Your task to perform on an android device: Is it going to rain tomorrow? Image 0: 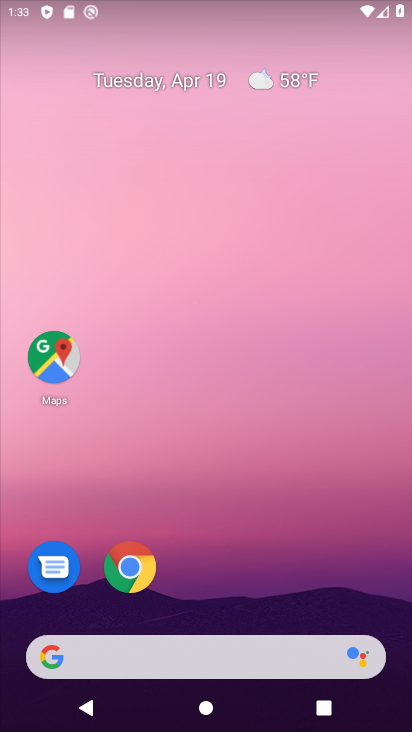
Step 0: click (126, 565)
Your task to perform on an android device: Is it going to rain tomorrow? Image 1: 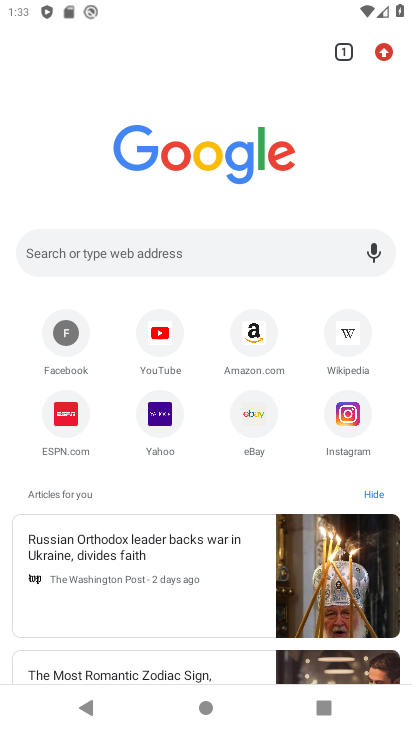
Step 1: click (132, 255)
Your task to perform on an android device: Is it going to rain tomorrow? Image 2: 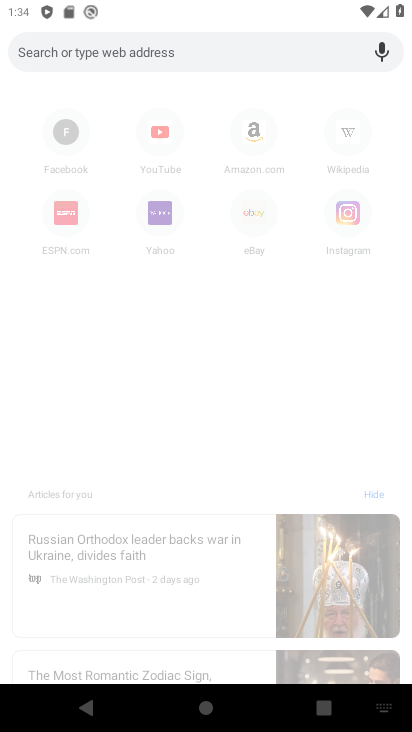
Step 2: type "is it going to rain tomorrow"
Your task to perform on an android device: Is it going to rain tomorrow? Image 3: 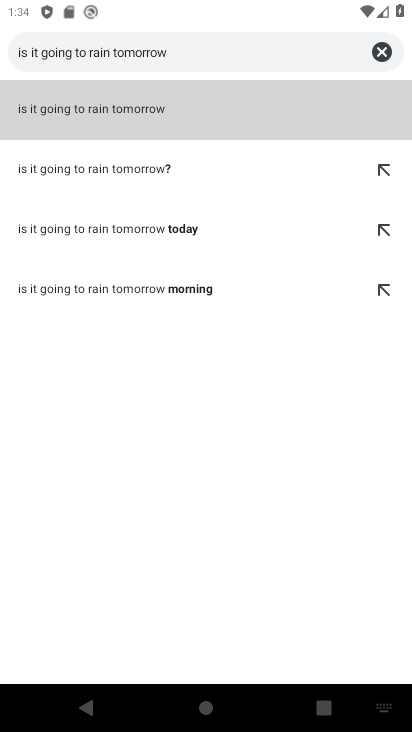
Step 3: click (154, 172)
Your task to perform on an android device: Is it going to rain tomorrow? Image 4: 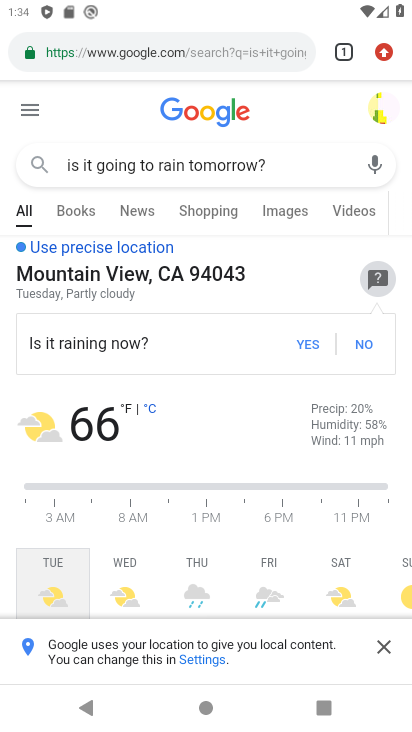
Step 4: task complete